Your task to perform on an android device: Go to wifi settings Image 0: 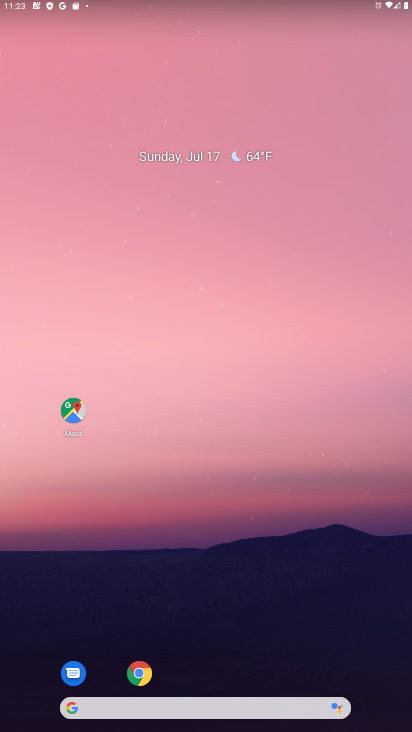
Step 0: drag from (233, 675) to (280, 95)
Your task to perform on an android device: Go to wifi settings Image 1: 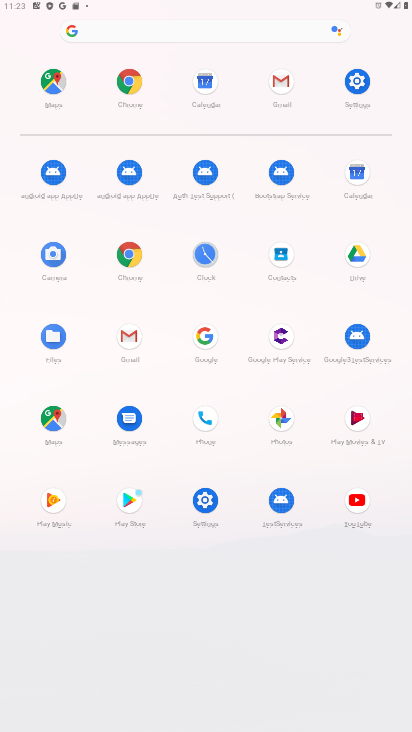
Step 1: click (359, 83)
Your task to perform on an android device: Go to wifi settings Image 2: 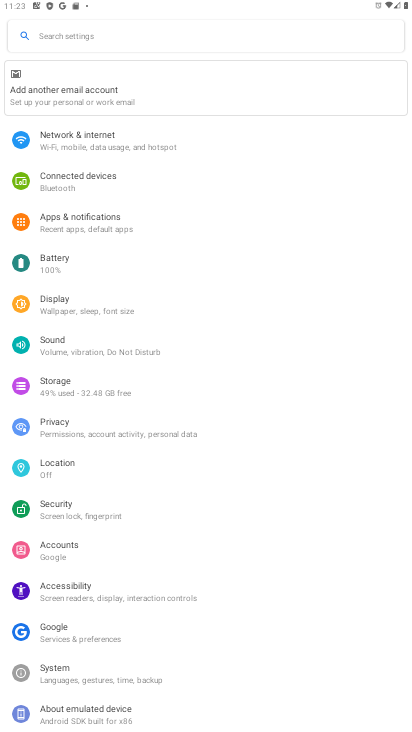
Step 2: click (117, 138)
Your task to perform on an android device: Go to wifi settings Image 3: 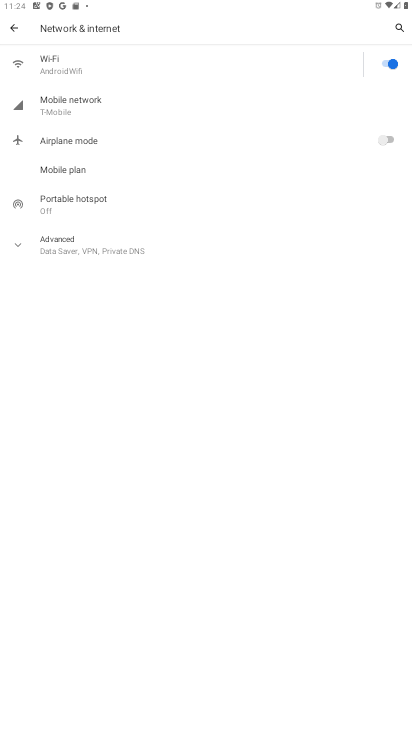
Step 3: click (102, 61)
Your task to perform on an android device: Go to wifi settings Image 4: 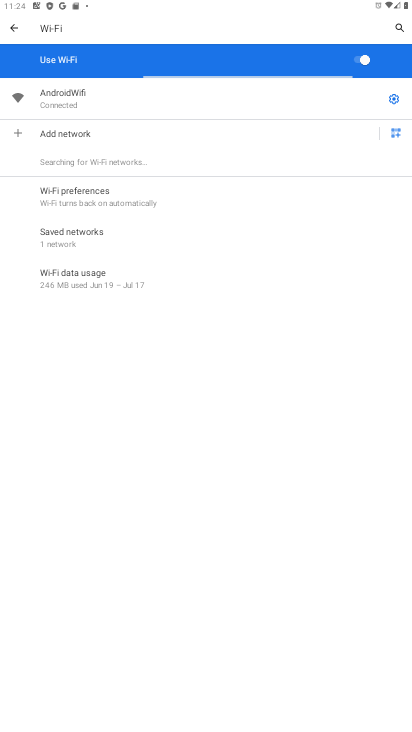
Step 4: click (120, 97)
Your task to perform on an android device: Go to wifi settings Image 5: 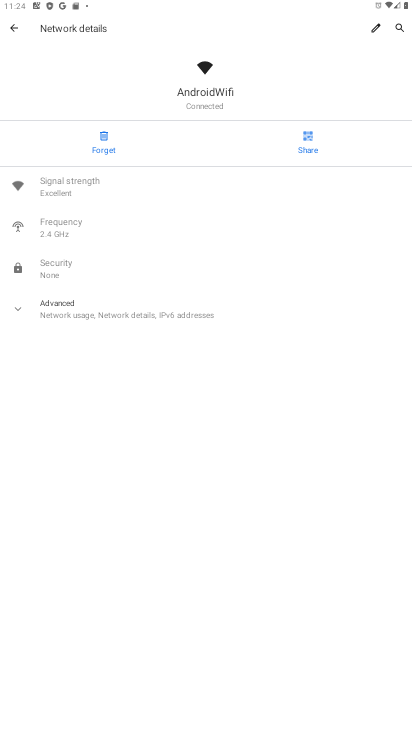
Step 5: task complete